Your task to perform on an android device: Go to wifi settings Image 0: 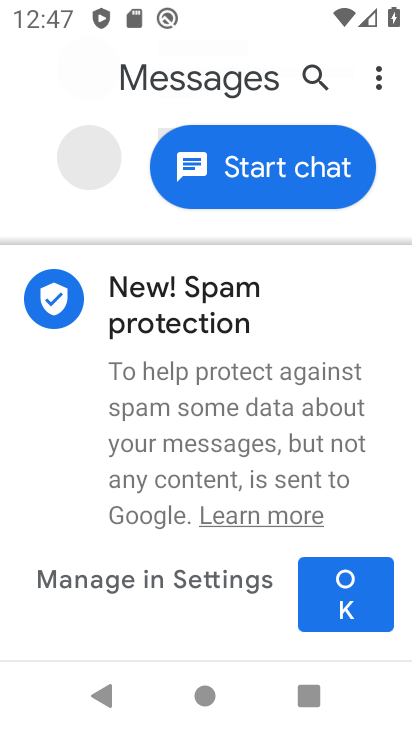
Step 0: press home button
Your task to perform on an android device: Go to wifi settings Image 1: 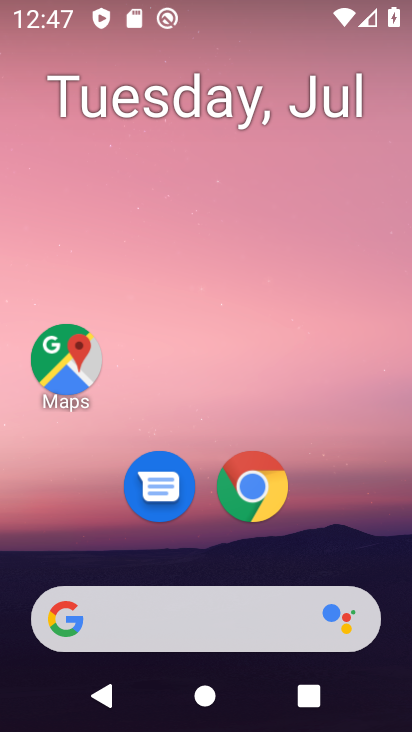
Step 1: drag from (343, 539) to (364, 167)
Your task to perform on an android device: Go to wifi settings Image 2: 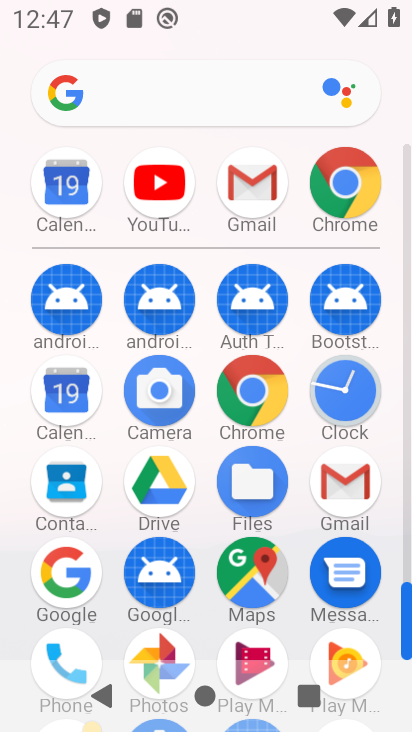
Step 2: drag from (382, 530) to (394, 298)
Your task to perform on an android device: Go to wifi settings Image 3: 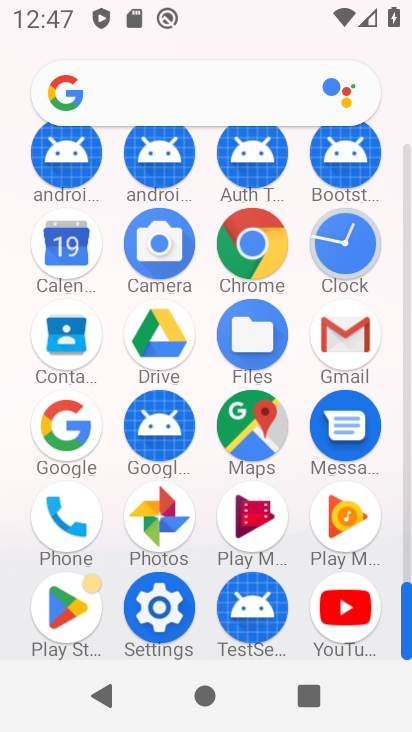
Step 3: click (173, 623)
Your task to perform on an android device: Go to wifi settings Image 4: 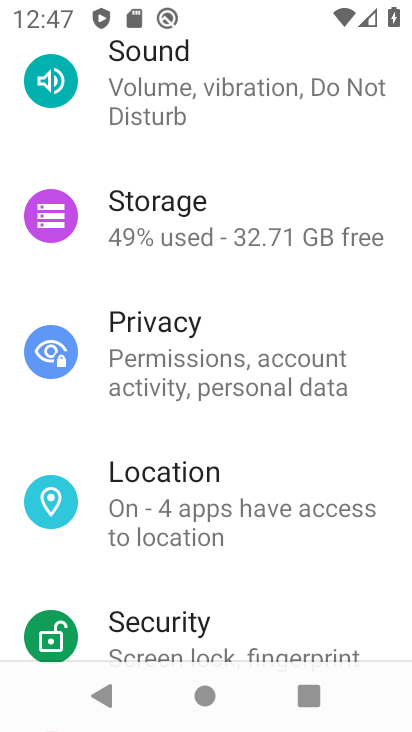
Step 4: drag from (369, 314) to (375, 465)
Your task to perform on an android device: Go to wifi settings Image 5: 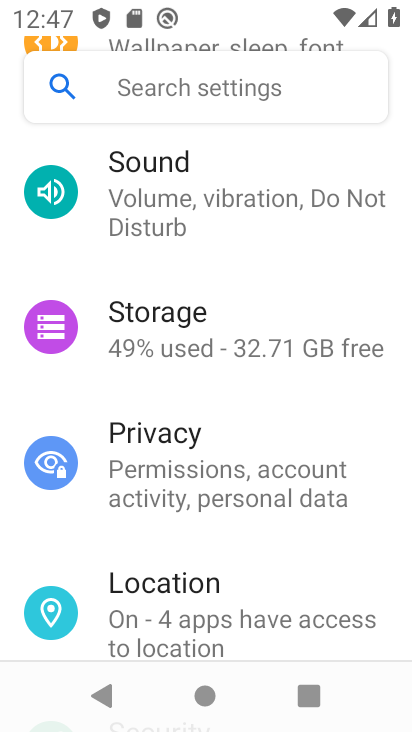
Step 5: drag from (369, 251) to (369, 388)
Your task to perform on an android device: Go to wifi settings Image 6: 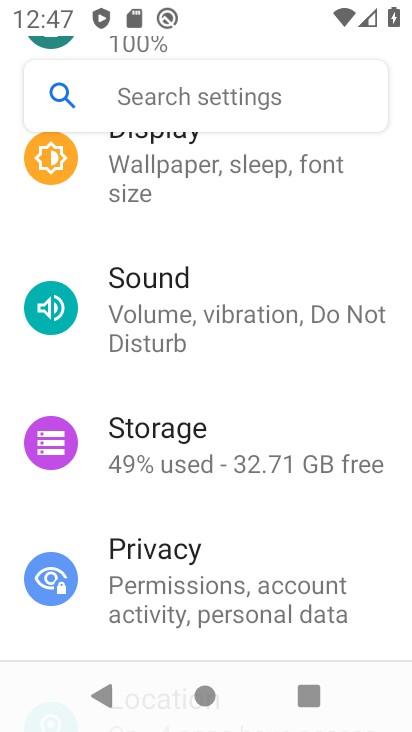
Step 6: drag from (354, 226) to (350, 370)
Your task to perform on an android device: Go to wifi settings Image 7: 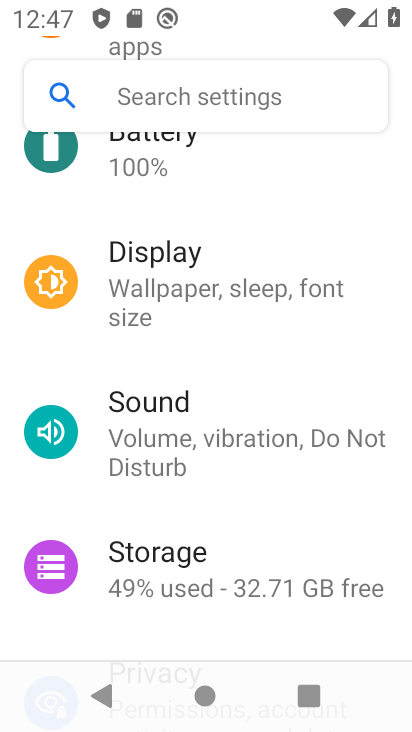
Step 7: drag from (371, 216) to (370, 367)
Your task to perform on an android device: Go to wifi settings Image 8: 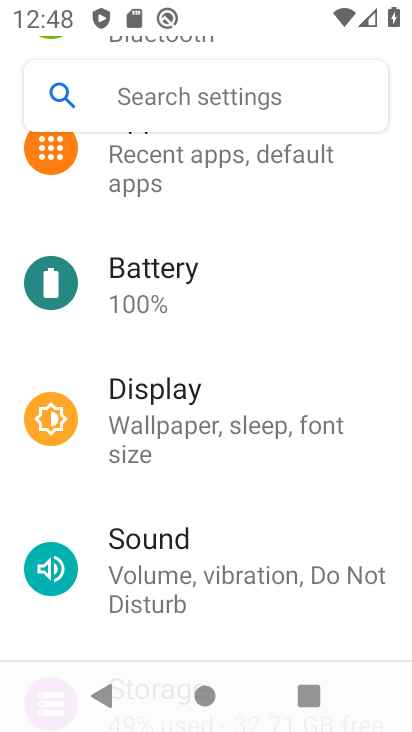
Step 8: drag from (361, 282) to (355, 410)
Your task to perform on an android device: Go to wifi settings Image 9: 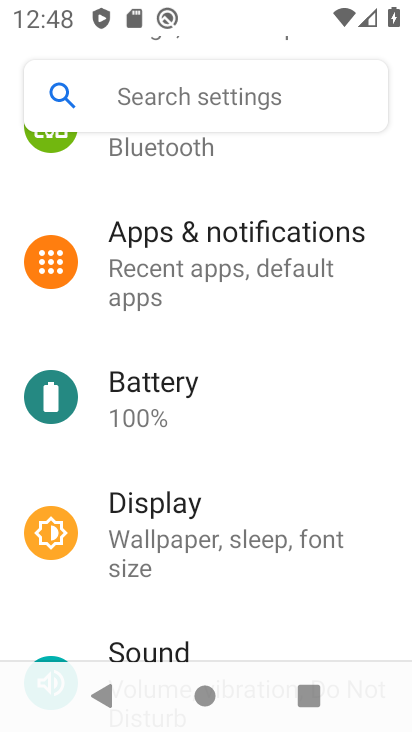
Step 9: drag from (366, 195) to (361, 361)
Your task to perform on an android device: Go to wifi settings Image 10: 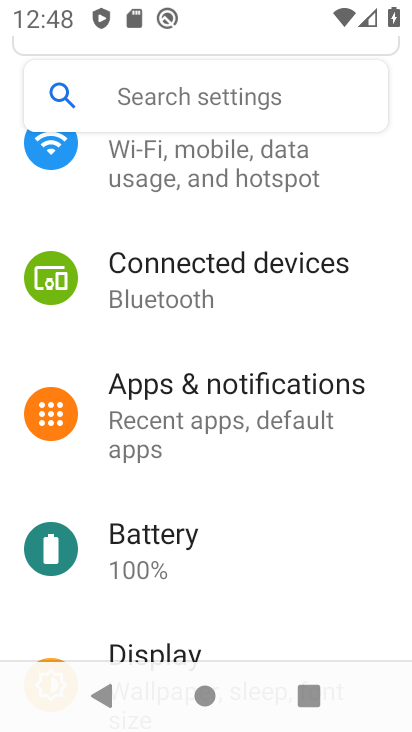
Step 10: drag from (373, 219) to (373, 351)
Your task to perform on an android device: Go to wifi settings Image 11: 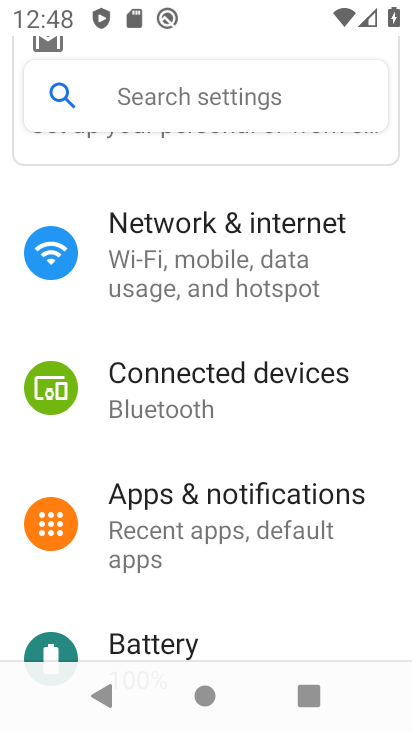
Step 11: drag from (375, 233) to (366, 382)
Your task to perform on an android device: Go to wifi settings Image 12: 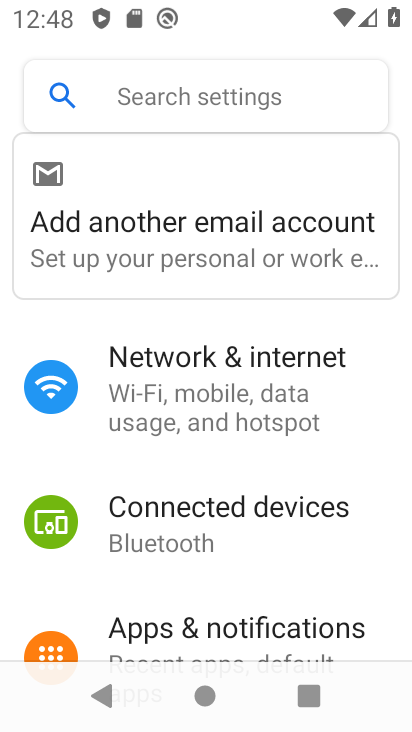
Step 12: click (267, 402)
Your task to perform on an android device: Go to wifi settings Image 13: 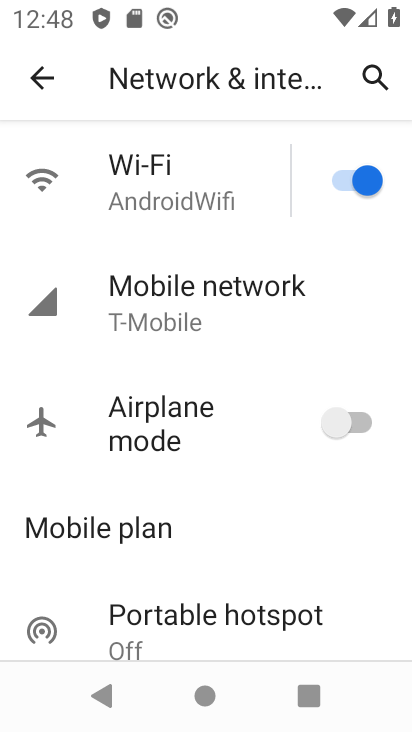
Step 13: click (169, 187)
Your task to perform on an android device: Go to wifi settings Image 14: 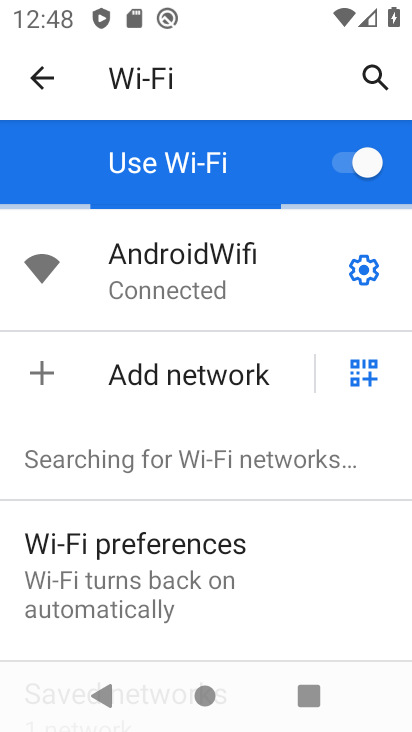
Step 14: task complete